Your task to perform on an android device: turn off priority inbox in the gmail app Image 0: 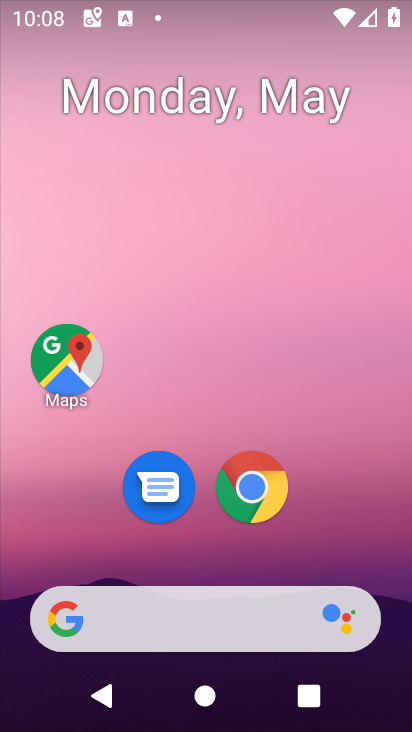
Step 0: drag from (210, 494) to (206, 90)
Your task to perform on an android device: turn off priority inbox in the gmail app Image 1: 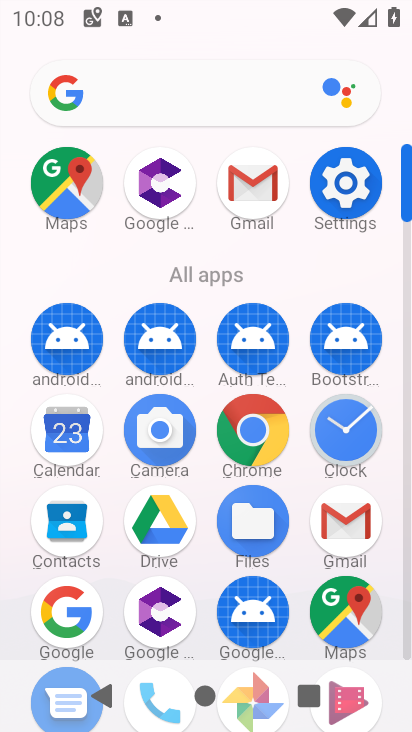
Step 1: click (246, 172)
Your task to perform on an android device: turn off priority inbox in the gmail app Image 2: 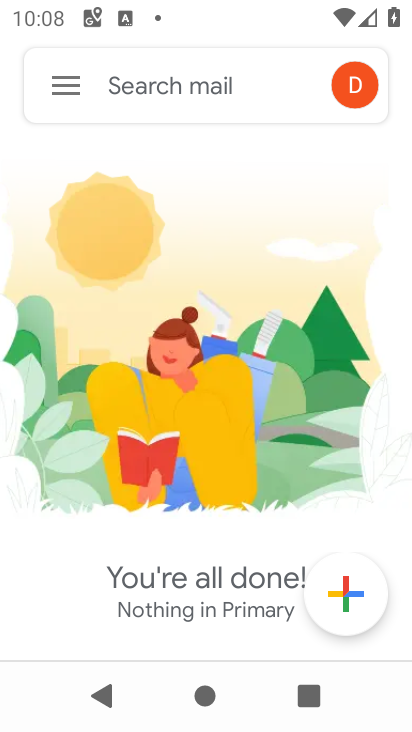
Step 2: click (58, 90)
Your task to perform on an android device: turn off priority inbox in the gmail app Image 3: 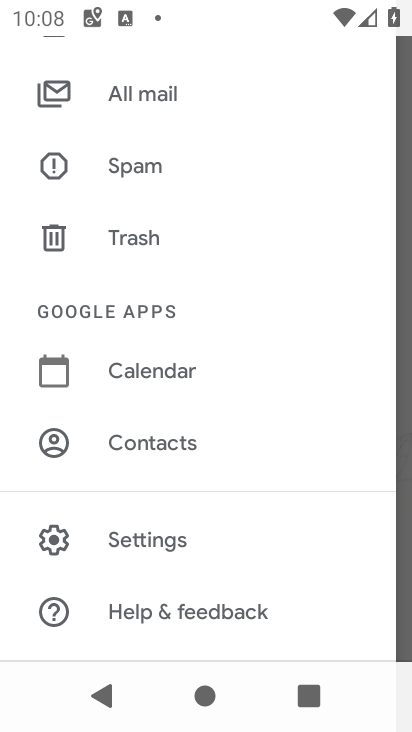
Step 3: click (123, 549)
Your task to perform on an android device: turn off priority inbox in the gmail app Image 4: 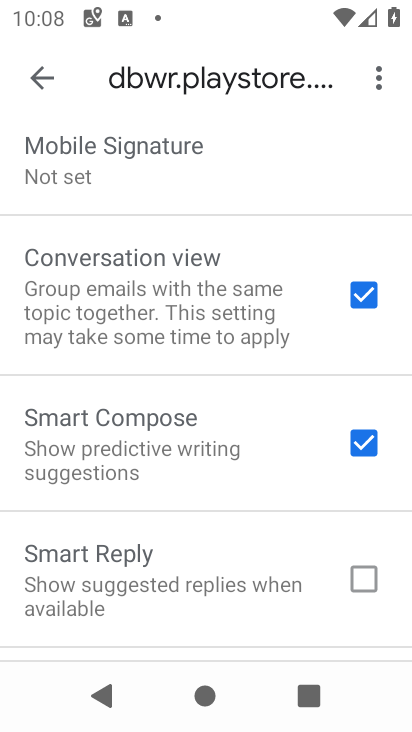
Step 4: drag from (164, 112) to (167, 605)
Your task to perform on an android device: turn off priority inbox in the gmail app Image 5: 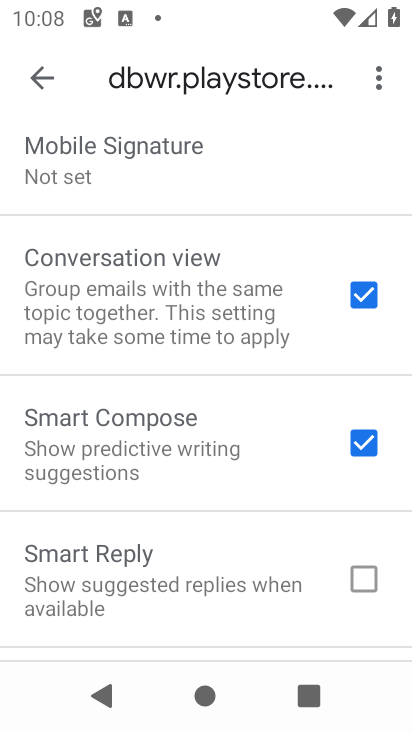
Step 5: drag from (155, 194) to (112, 701)
Your task to perform on an android device: turn off priority inbox in the gmail app Image 6: 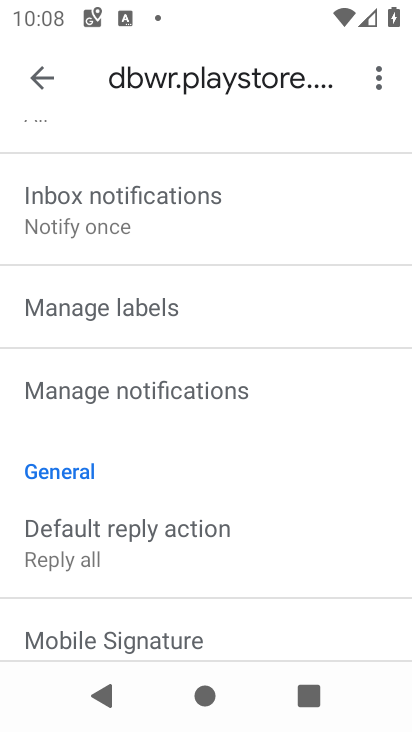
Step 6: drag from (109, 205) to (189, 625)
Your task to perform on an android device: turn off priority inbox in the gmail app Image 7: 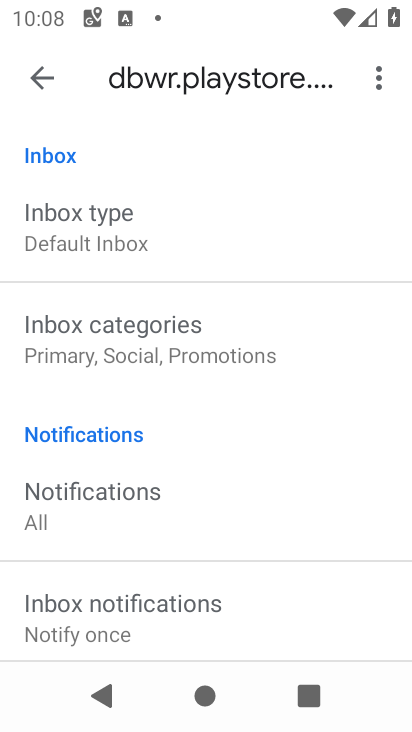
Step 7: drag from (161, 237) to (163, 653)
Your task to perform on an android device: turn off priority inbox in the gmail app Image 8: 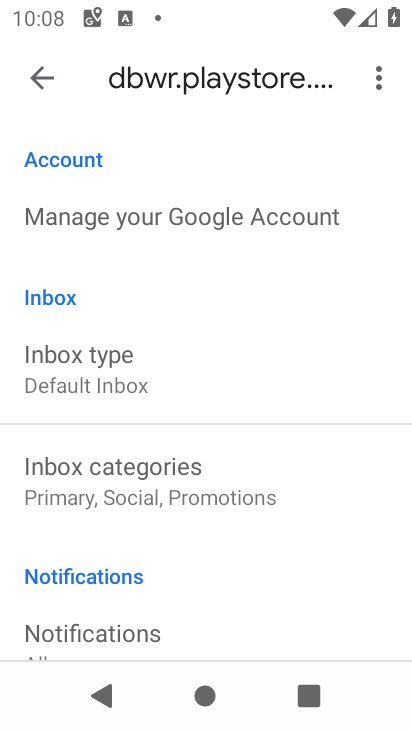
Step 8: click (125, 364)
Your task to perform on an android device: turn off priority inbox in the gmail app Image 9: 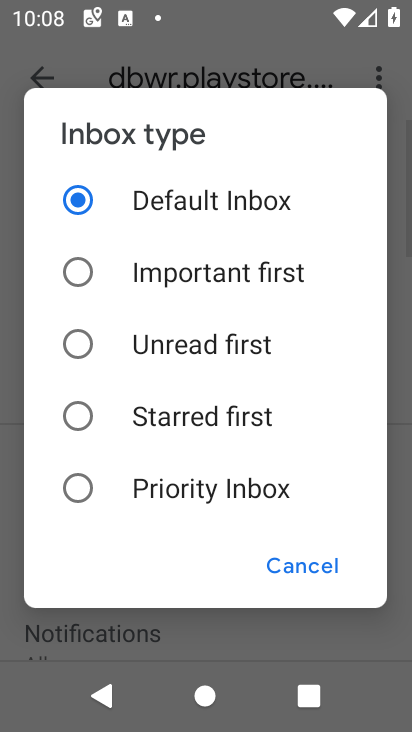
Step 9: task complete